Your task to perform on an android device: Go to Google maps Image 0: 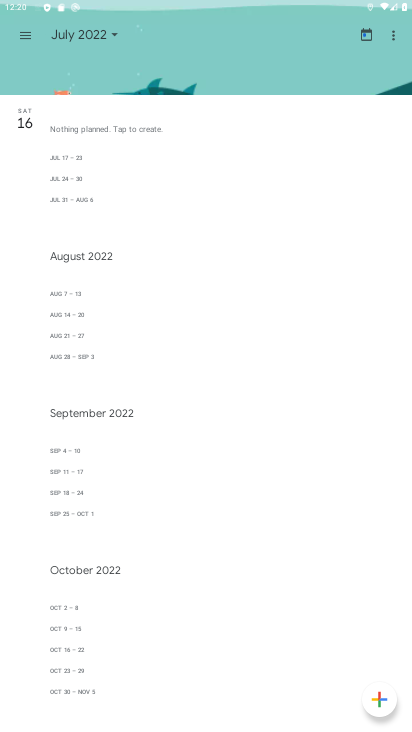
Step 0: press home button
Your task to perform on an android device: Go to Google maps Image 1: 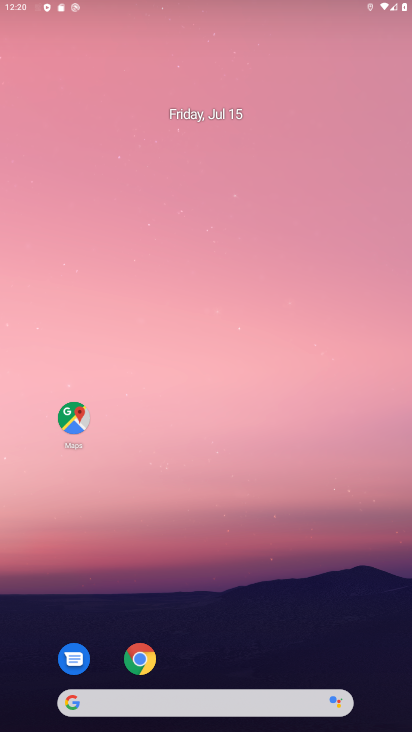
Step 1: click (76, 419)
Your task to perform on an android device: Go to Google maps Image 2: 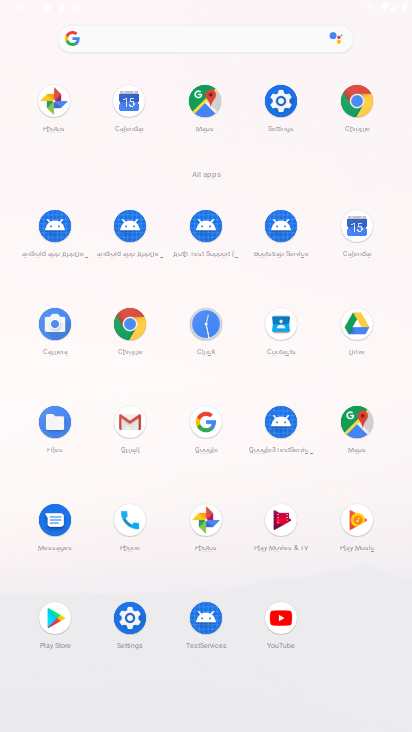
Step 2: task complete